Your task to perform on an android device: turn on the 24-hour format for clock Image 0: 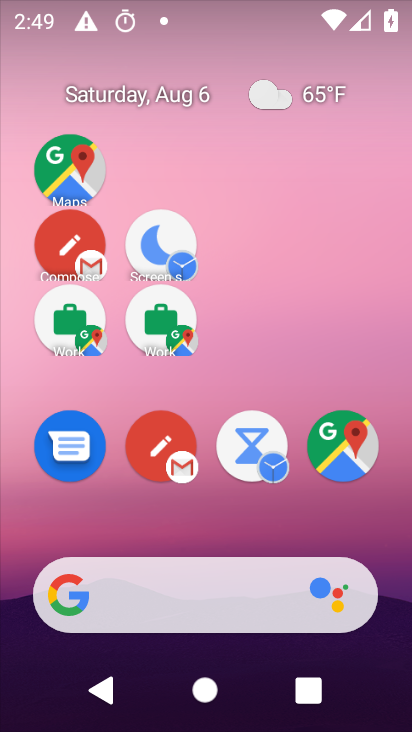
Step 0: drag from (242, 460) to (223, 346)
Your task to perform on an android device: turn on the 24-hour format for clock Image 1: 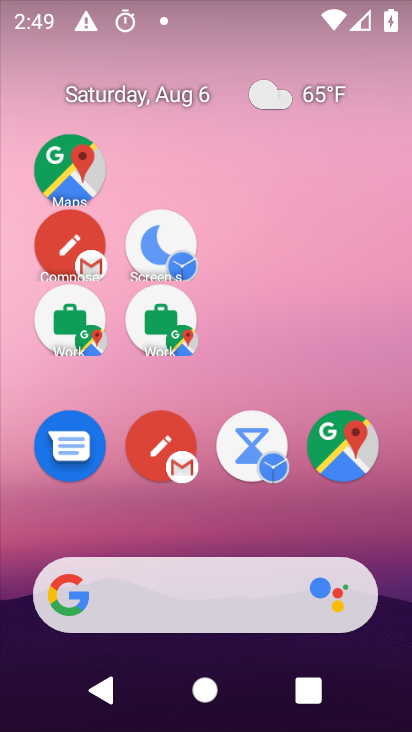
Step 1: drag from (246, 525) to (186, 287)
Your task to perform on an android device: turn on the 24-hour format for clock Image 2: 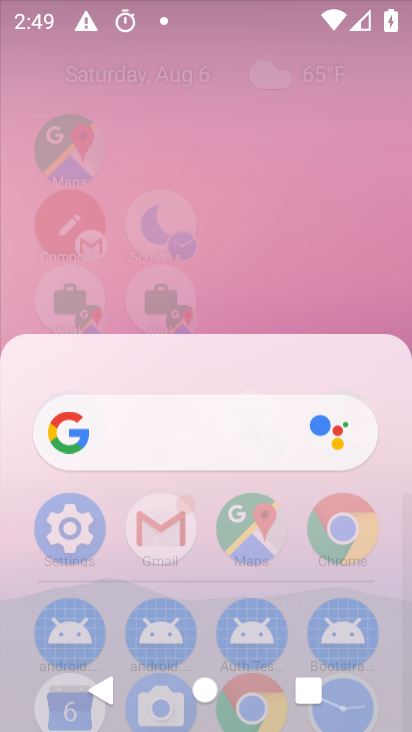
Step 2: drag from (264, 535) to (168, 106)
Your task to perform on an android device: turn on the 24-hour format for clock Image 3: 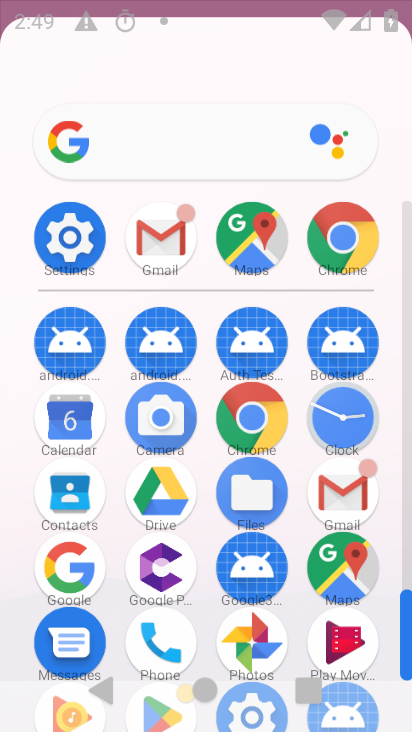
Step 3: drag from (258, 533) to (249, 296)
Your task to perform on an android device: turn on the 24-hour format for clock Image 4: 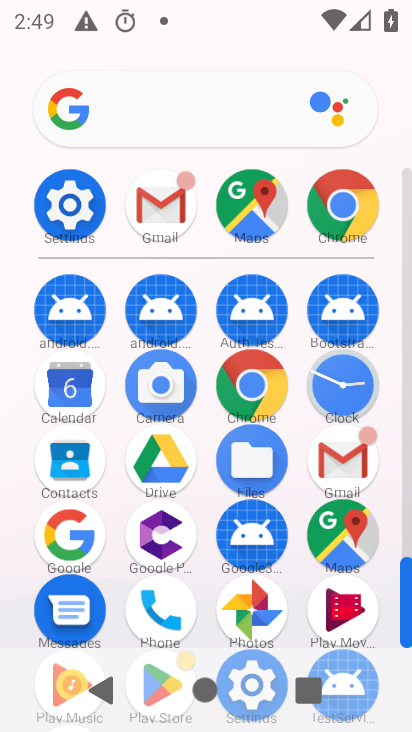
Step 4: click (340, 383)
Your task to perform on an android device: turn on the 24-hour format for clock Image 5: 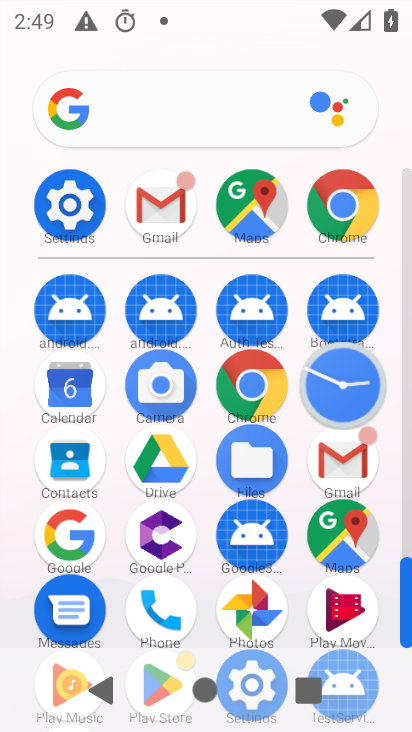
Step 5: click (340, 383)
Your task to perform on an android device: turn on the 24-hour format for clock Image 6: 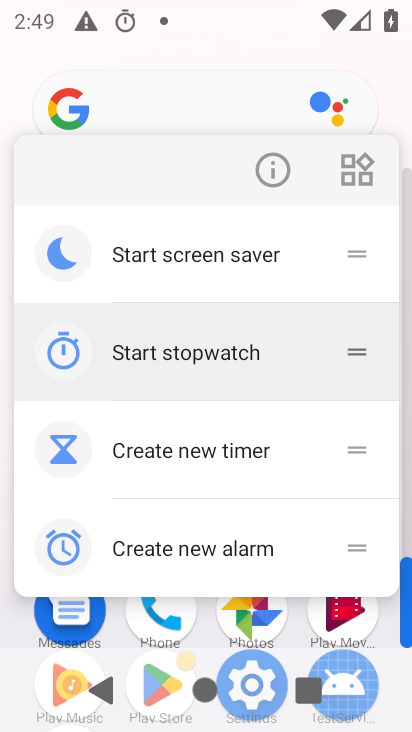
Step 6: click (340, 383)
Your task to perform on an android device: turn on the 24-hour format for clock Image 7: 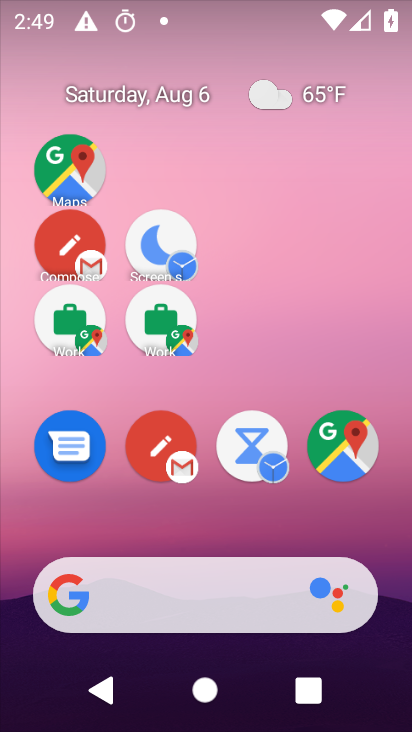
Step 7: drag from (269, 652) to (245, 337)
Your task to perform on an android device: turn on the 24-hour format for clock Image 8: 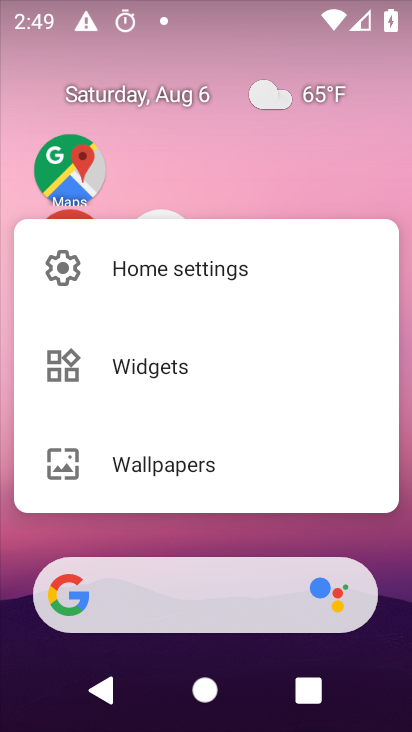
Step 8: click (273, 472)
Your task to perform on an android device: turn on the 24-hour format for clock Image 9: 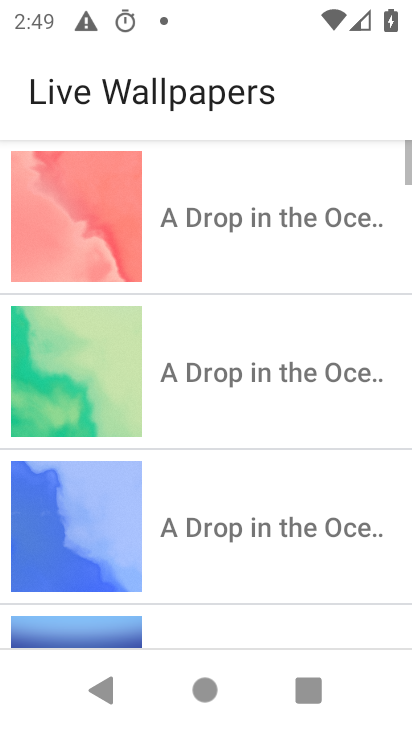
Step 9: press back button
Your task to perform on an android device: turn on the 24-hour format for clock Image 10: 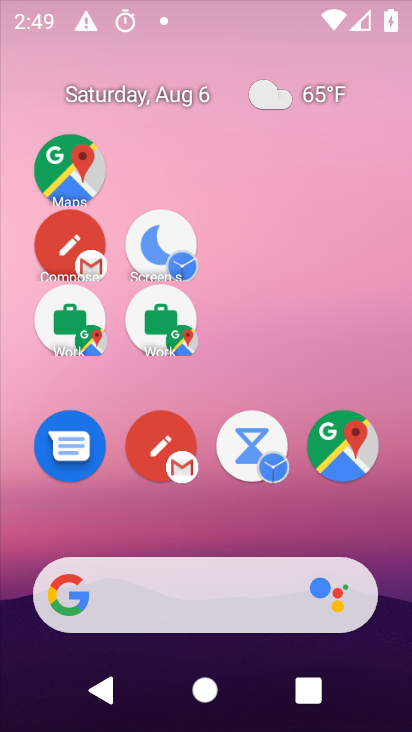
Step 10: press back button
Your task to perform on an android device: turn on the 24-hour format for clock Image 11: 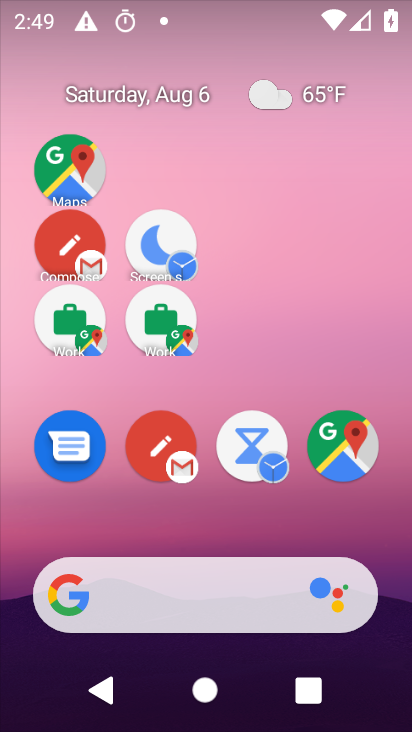
Step 11: click (169, 238)
Your task to perform on an android device: turn on the 24-hour format for clock Image 12: 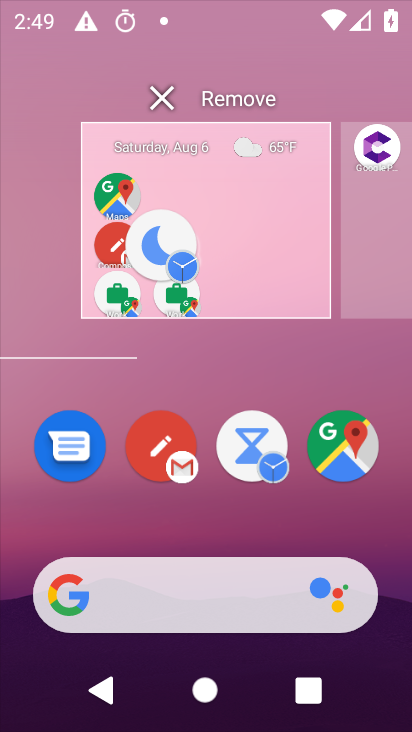
Step 12: click (164, 238)
Your task to perform on an android device: turn on the 24-hour format for clock Image 13: 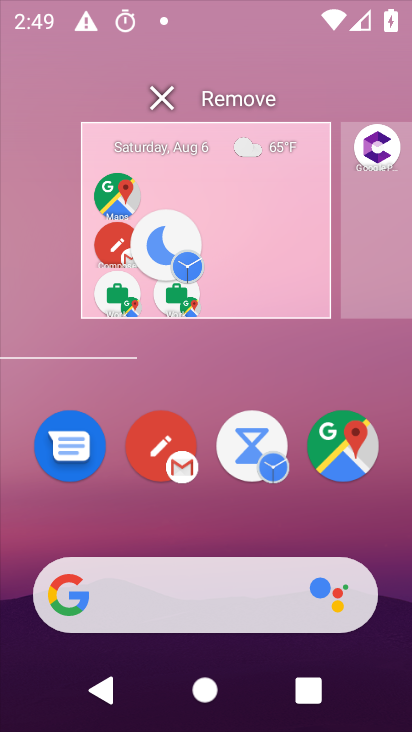
Step 13: drag from (165, 239) to (208, 254)
Your task to perform on an android device: turn on the 24-hour format for clock Image 14: 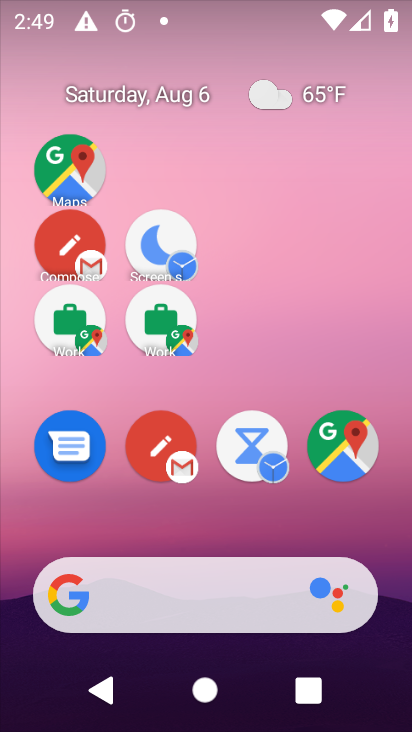
Step 14: press back button
Your task to perform on an android device: turn on the 24-hour format for clock Image 15: 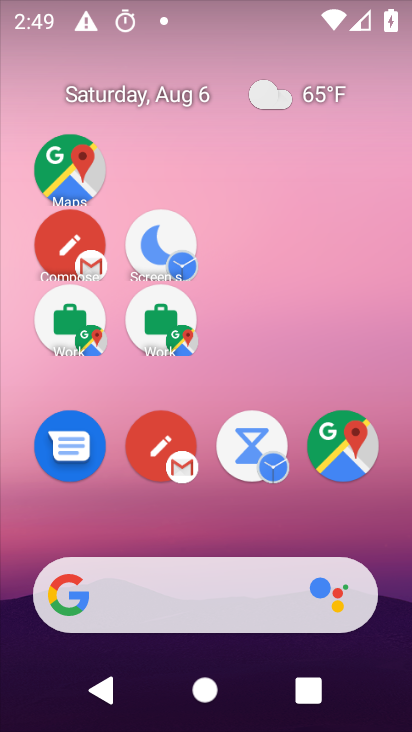
Step 15: drag from (271, 687) to (234, 96)
Your task to perform on an android device: turn on the 24-hour format for clock Image 16: 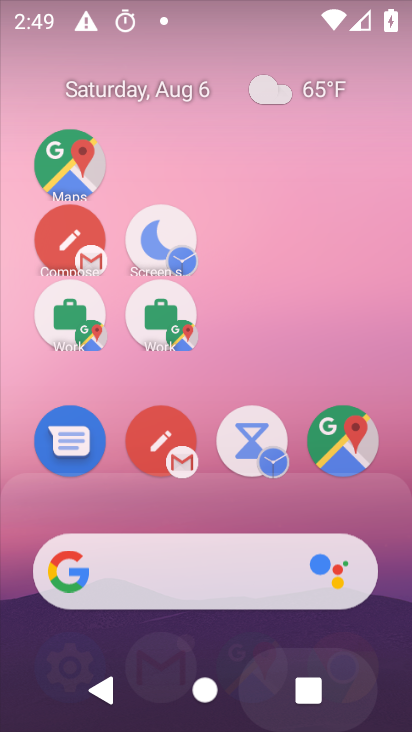
Step 16: drag from (323, 591) to (235, 345)
Your task to perform on an android device: turn on the 24-hour format for clock Image 17: 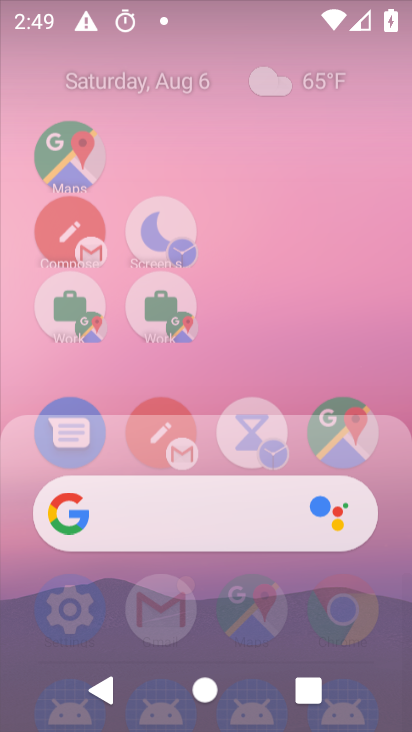
Step 17: drag from (200, 618) to (141, 127)
Your task to perform on an android device: turn on the 24-hour format for clock Image 18: 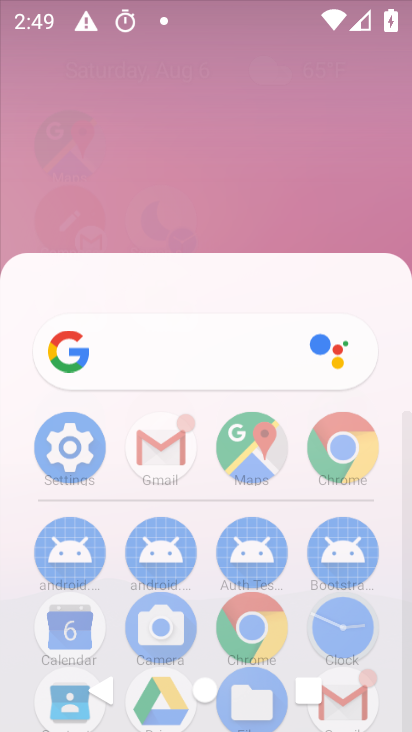
Step 18: drag from (229, 657) to (190, 305)
Your task to perform on an android device: turn on the 24-hour format for clock Image 19: 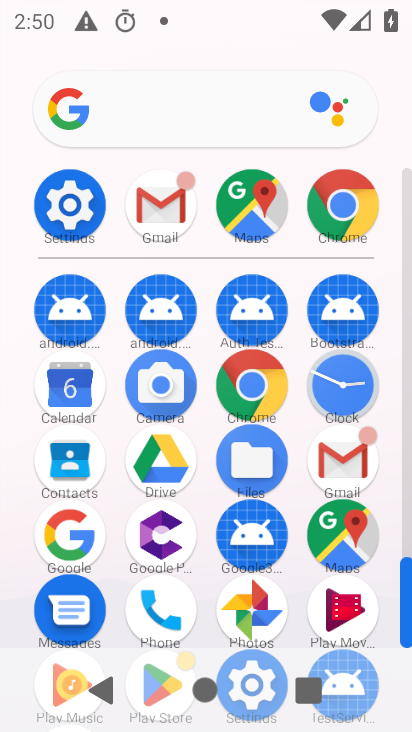
Step 19: click (344, 380)
Your task to perform on an android device: turn on the 24-hour format for clock Image 20: 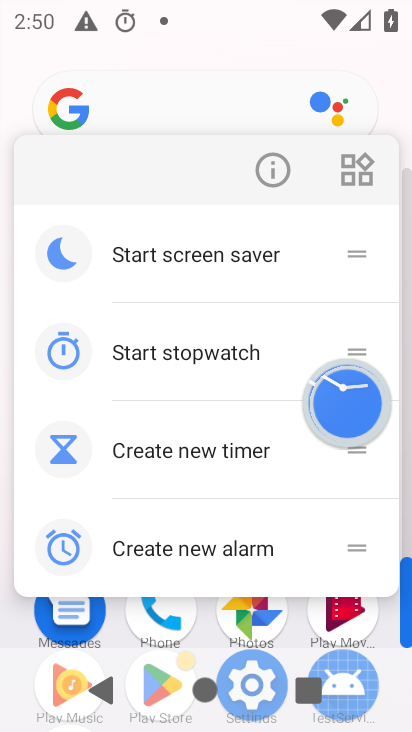
Step 20: click (348, 398)
Your task to perform on an android device: turn on the 24-hour format for clock Image 21: 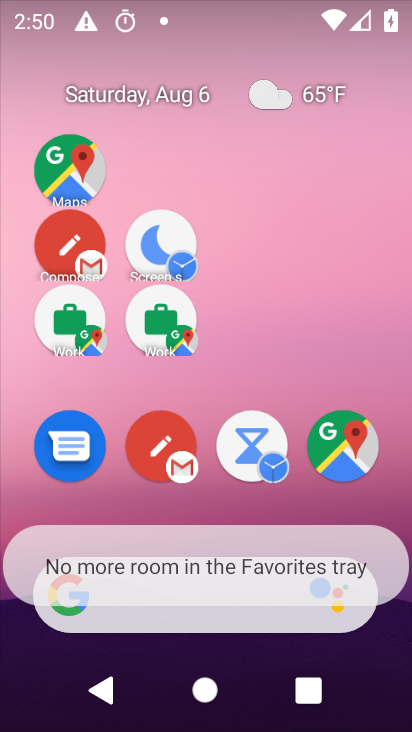
Step 21: drag from (259, 629) to (215, 177)
Your task to perform on an android device: turn on the 24-hour format for clock Image 22: 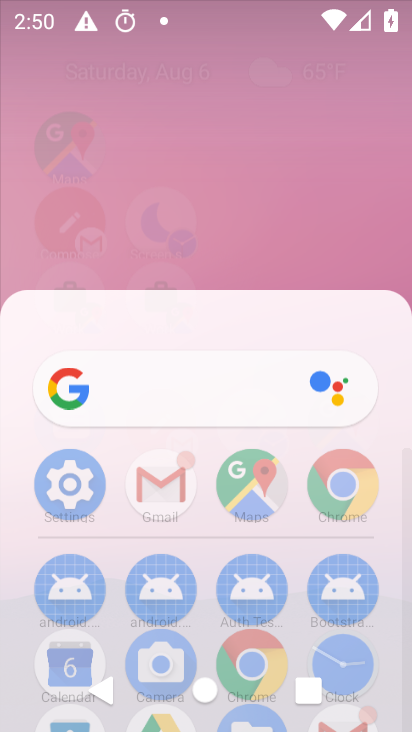
Step 22: drag from (291, 640) to (291, 295)
Your task to perform on an android device: turn on the 24-hour format for clock Image 23: 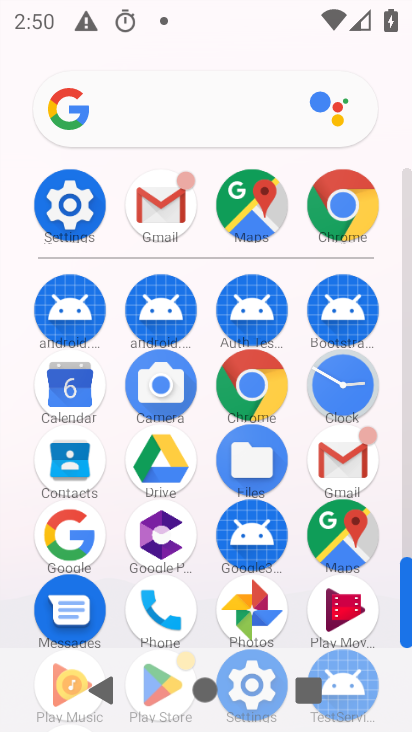
Step 23: click (340, 389)
Your task to perform on an android device: turn on the 24-hour format for clock Image 24: 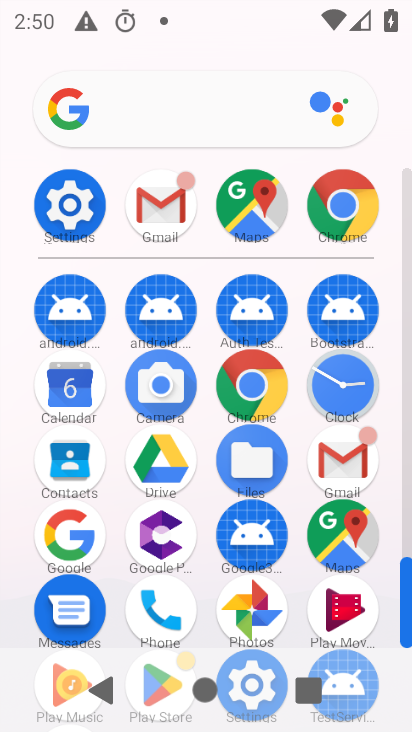
Step 24: click (341, 388)
Your task to perform on an android device: turn on the 24-hour format for clock Image 25: 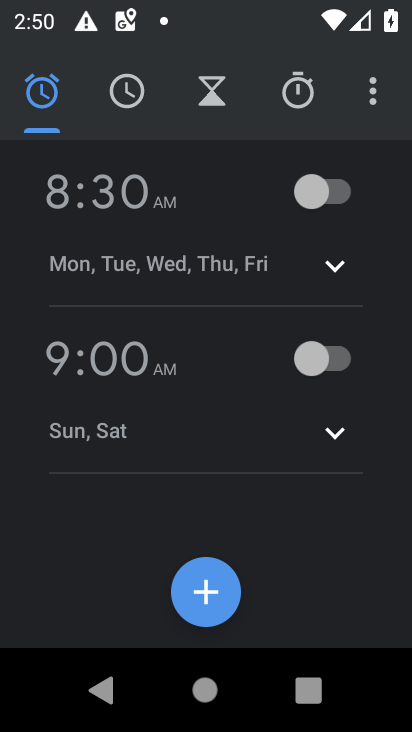
Step 25: click (375, 90)
Your task to perform on an android device: turn on the 24-hour format for clock Image 26: 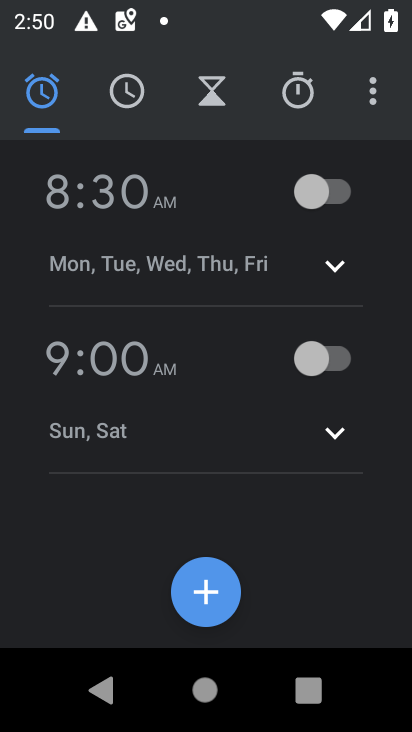
Step 26: click (367, 94)
Your task to perform on an android device: turn on the 24-hour format for clock Image 27: 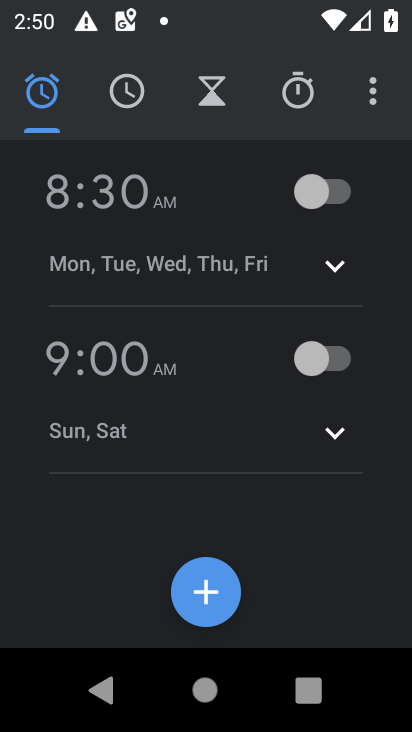
Step 27: click (367, 94)
Your task to perform on an android device: turn on the 24-hour format for clock Image 28: 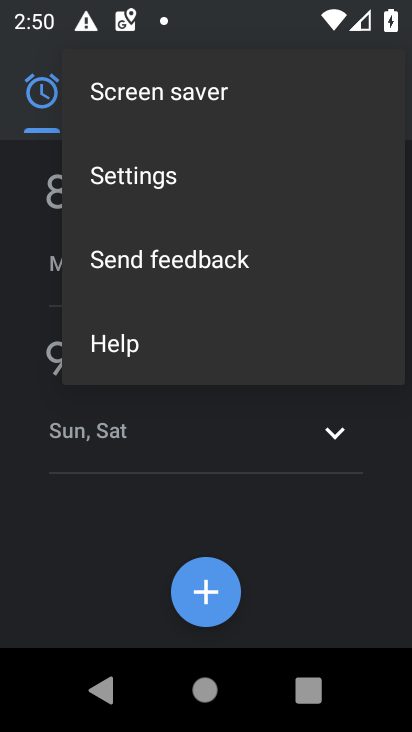
Step 28: click (86, 170)
Your task to perform on an android device: turn on the 24-hour format for clock Image 29: 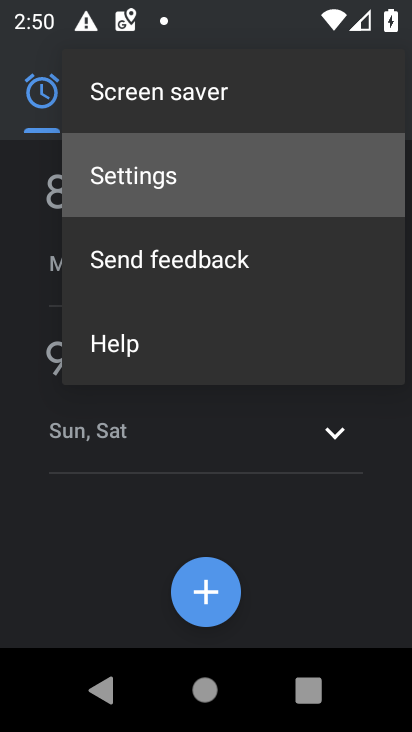
Step 29: click (100, 173)
Your task to perform on an android device: turn on the 24-hour format for clock Image 30: 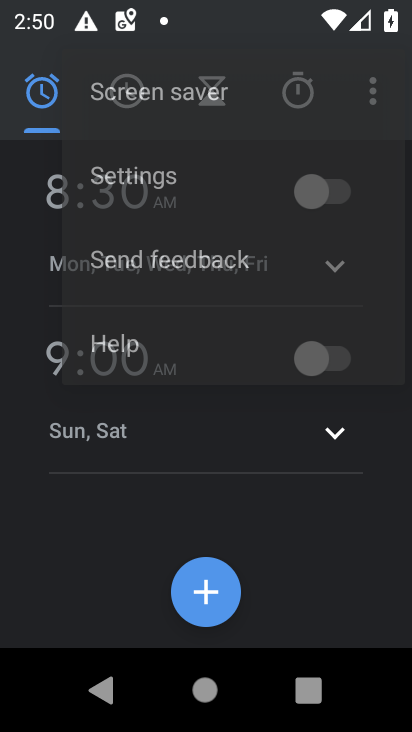
Step 30: click (100, 173)
Your task to perform on an android device: turn on the 24-hour format for clock Image 31: 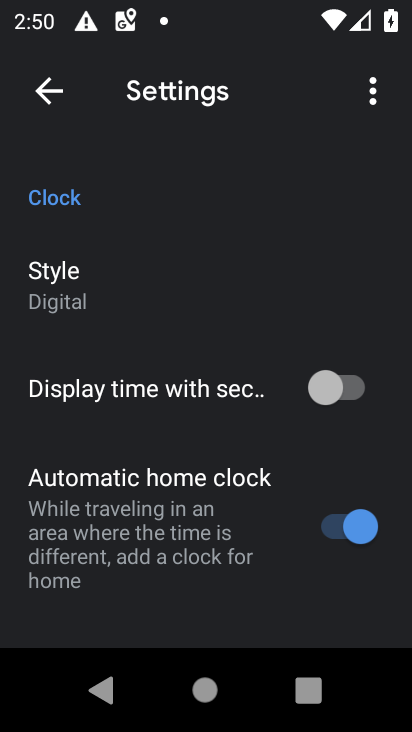
Step 31: drag from (205, 584) to (148, 191)
Your task to perform on an android device: turn on the 24-hour format for clock Image 32: 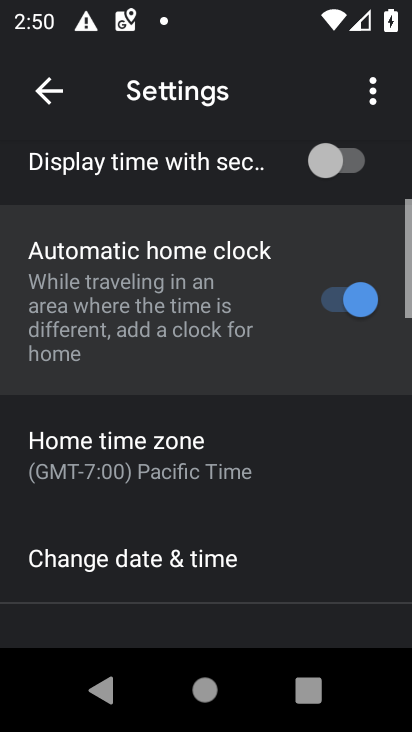
Step 32: drag from (163, 419) to (196, 181)
Your task to perform on an android device: turn on the 24-hour format for clock Image 33: 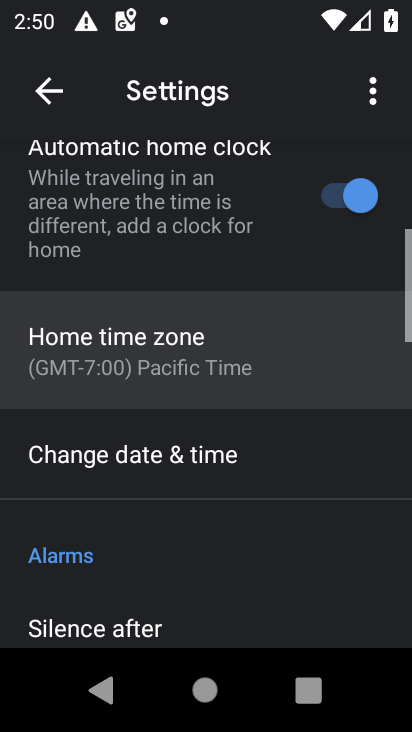
Step 33: drag from (259, 408) to (273, 170)
Your task to perform on an android device: turn on the 24-hour format for clock Image 34: 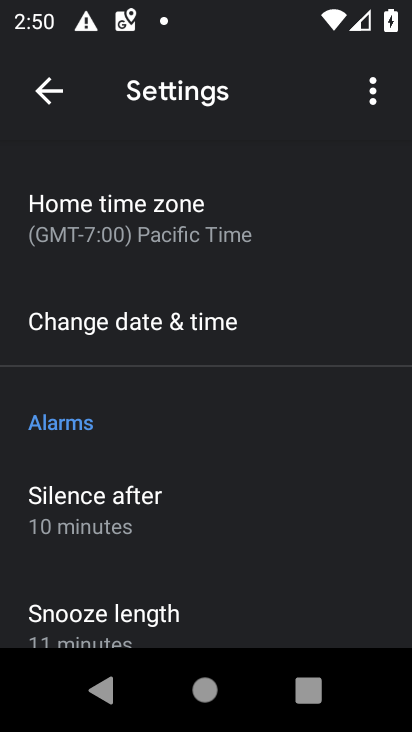
Step 34: click (103, 314)
Your task to perform on an android device: turn on the 24-hour format for clock Image 35: 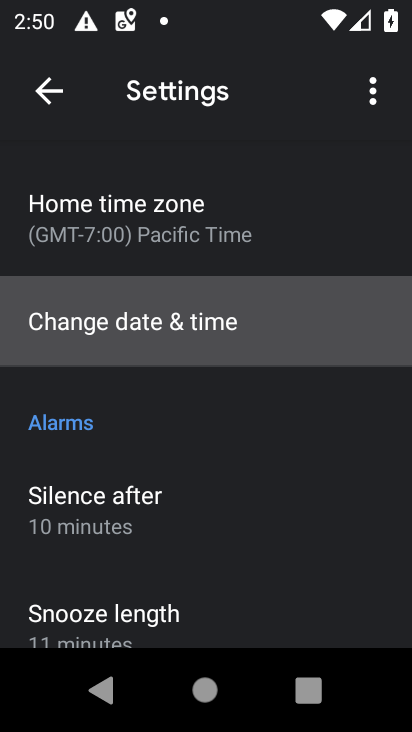
Step 35: click (105, 314)
Your task to perform on an android device: turn on the 24-hour format for clock Image 36: 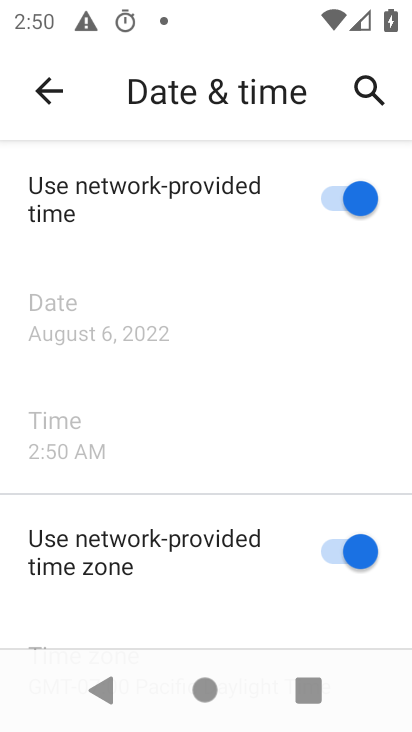
Step 36: drag from (245, 557) to (203, 334)
Your task to perform on an android device: turn on the 24-hour format for clock Image 37: 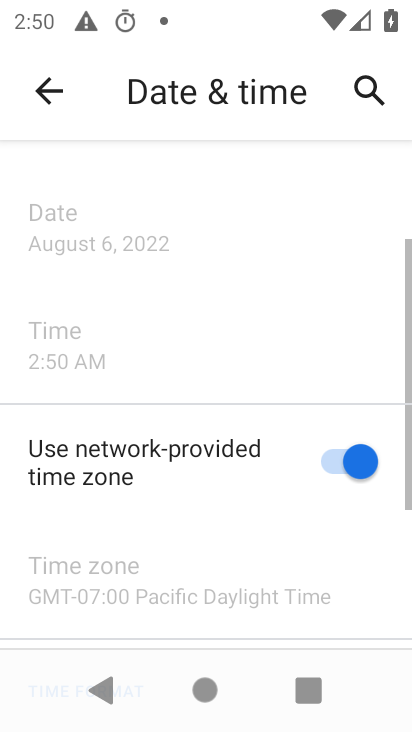
Step 37: drag from (222, 449) to (222, 234)
Your task to perform on an android device: turn on the 24-hour format for clock Image 38: 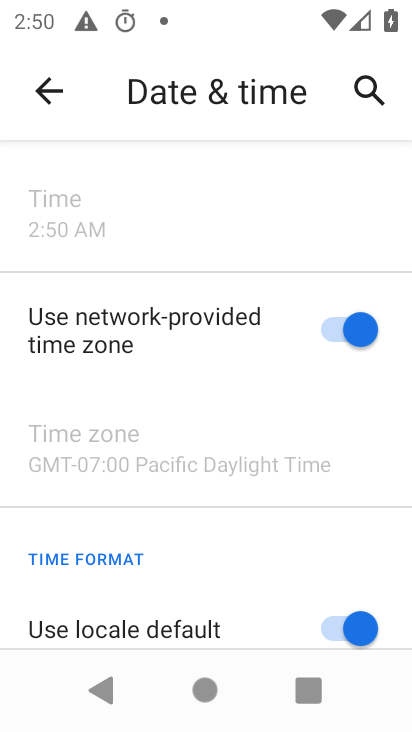
Step 38: drag from (248, 585) to (212, 339)
Your task to perform on an android device: turn on the 24-hour format for clock Image 39: 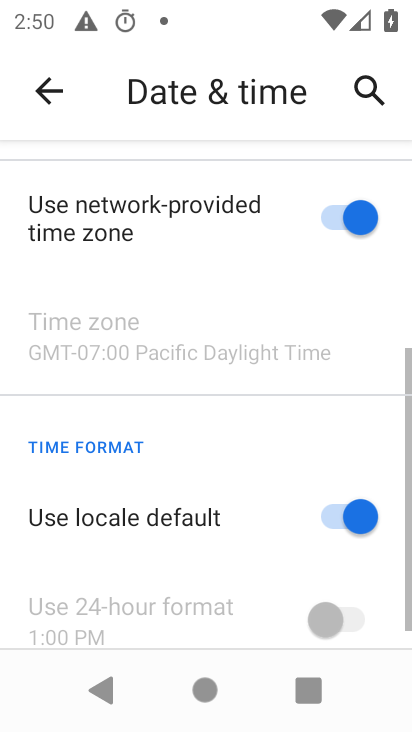
Step 39: drag from (254, 478) to (254, 289)
Your task to perform on an android device: turn on the 24-hour format for clock Image 40: 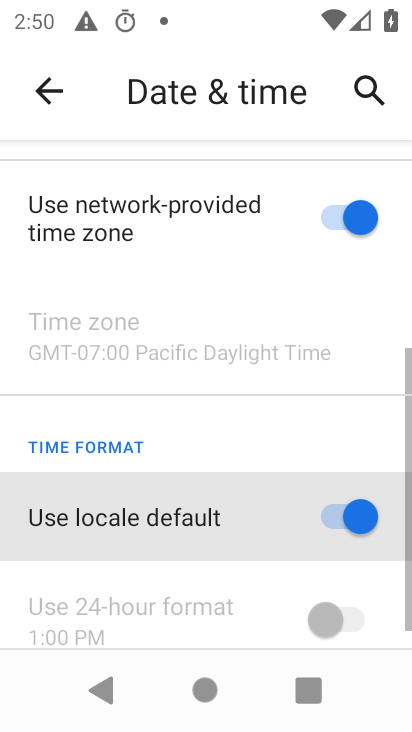
Step 40: drag from (282, 442) to (268, 218)
Your task to perform on an android device: turn on the 24-hour format for clock Image 41: 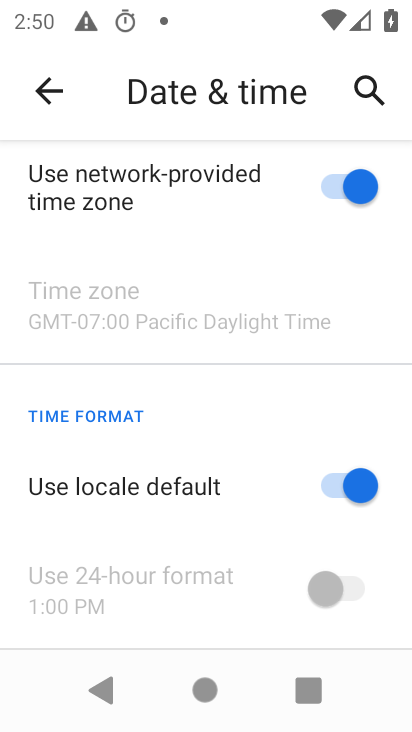
Step 41: click (357, 483)
Your task to perform on an android device: turn on the 24-hour format for clock Image 42: 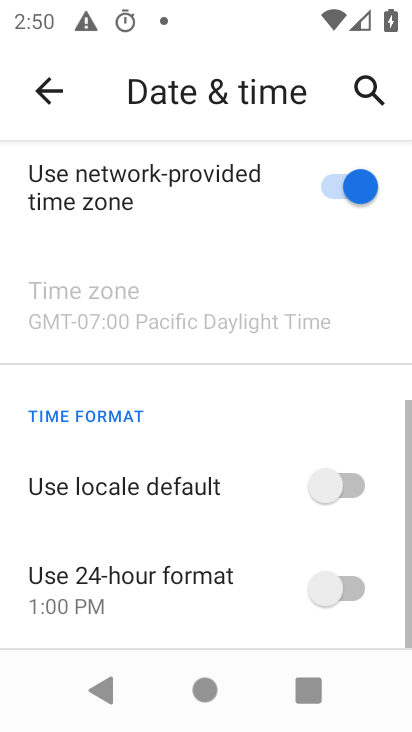
Step 42: click (331, 602)
Your task to perform on an android device: turn on the 24-hour format for clock Image 43: 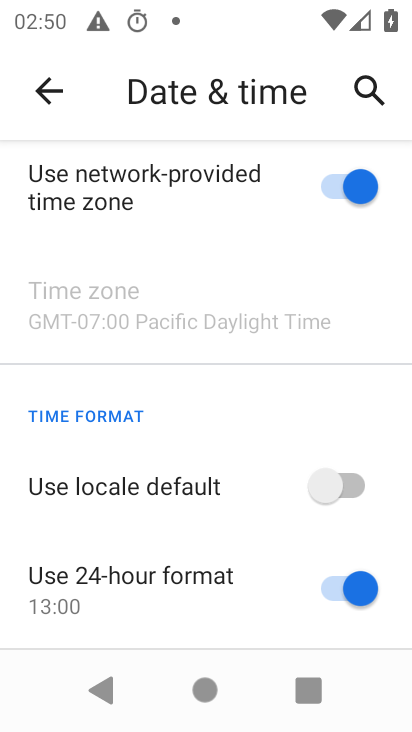
Step 43: task complete